Your task to perform on an android device: toggle show notifications on the lock screen Image 0: 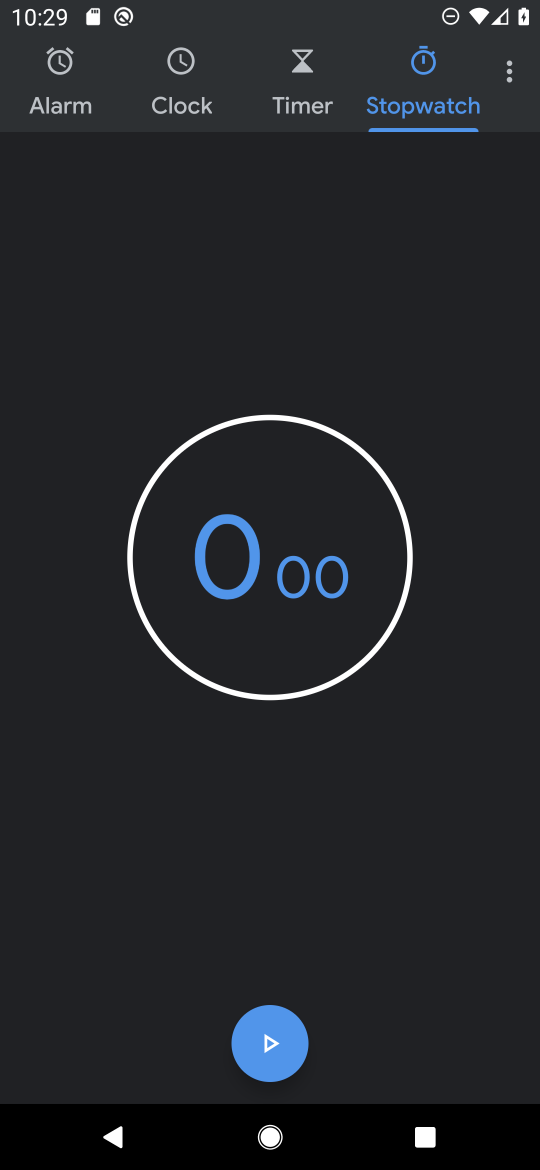
Step 0: press home button
Your task to perform on an android device: toggle show notifications on the lock screen Image 1: 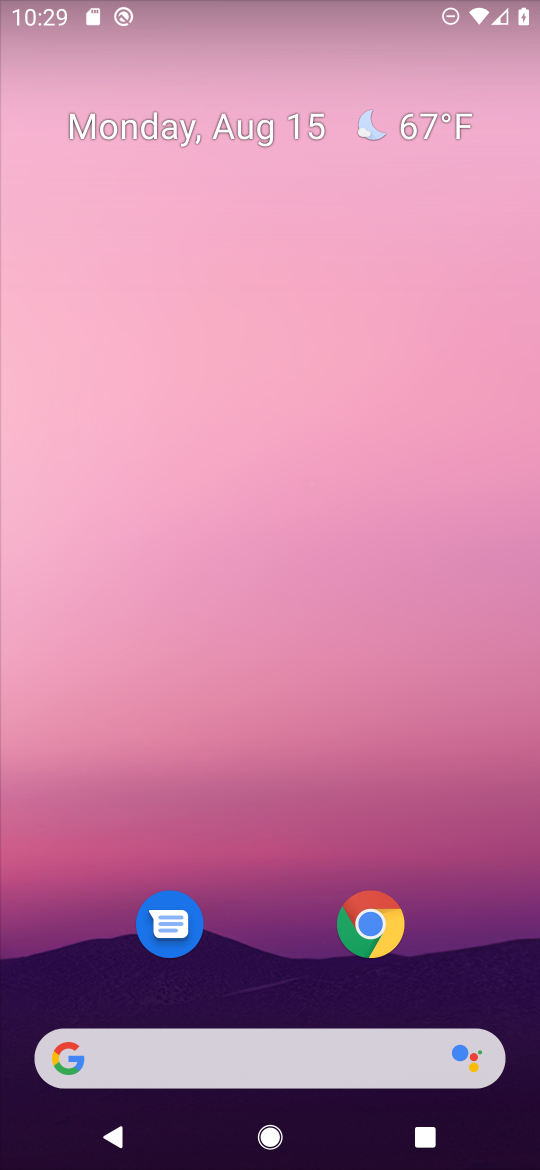
Step 1: drag from (508, 1012) to (480, 136)
Your task to perform on an android device: toggle show notifications on the lock screen Image 2: 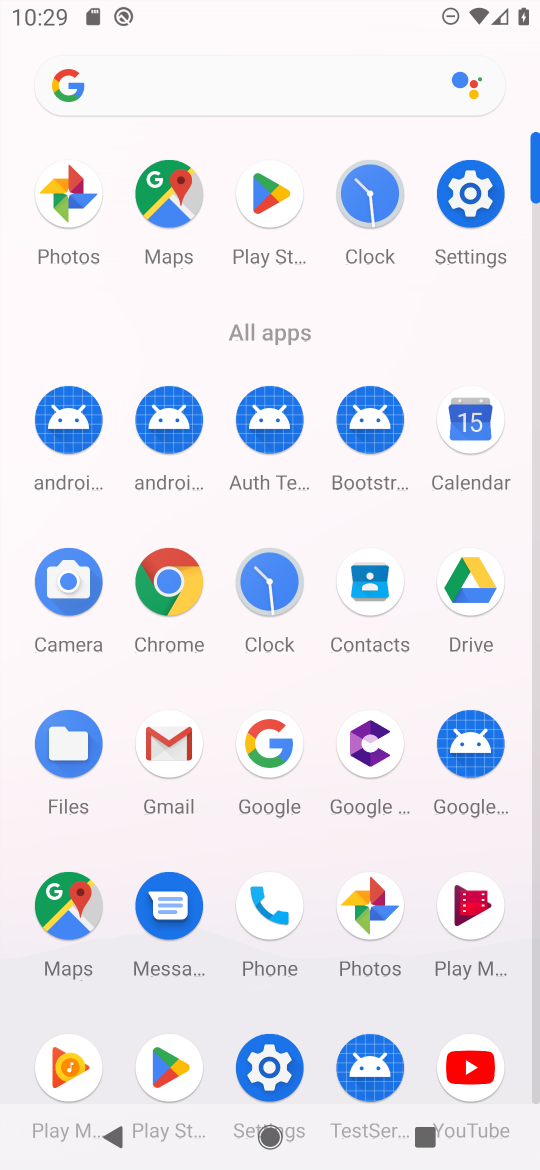
Step 2: click (268, 1067)
Your task to perform on an android device: toggle show notifications on the lock screen Image 3: 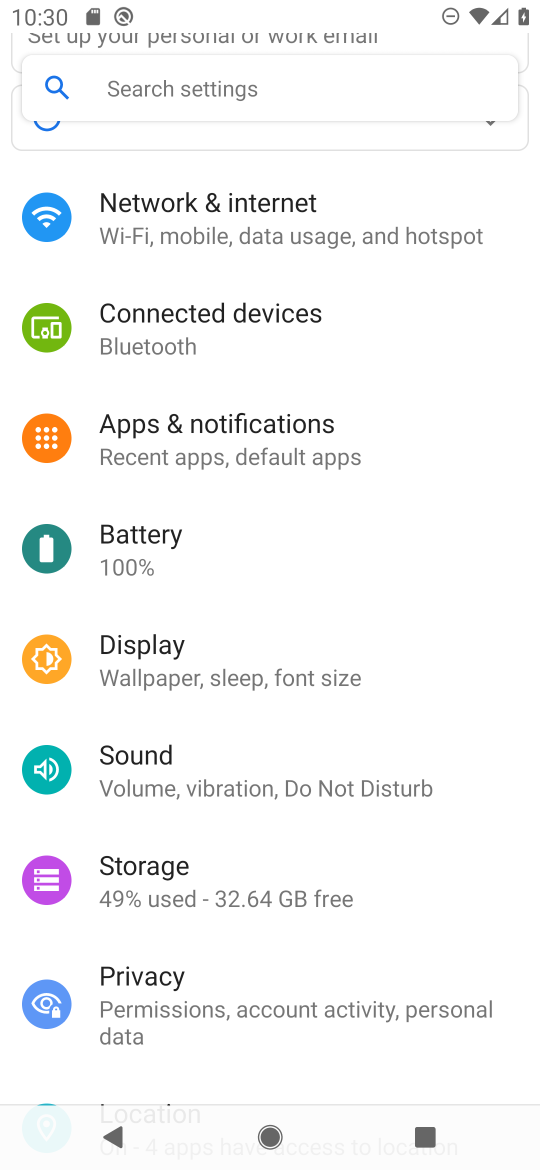
Step 3: click (187, 427)
Your task to perform on an android device: toggle show notifications on the lock screen Image 4: 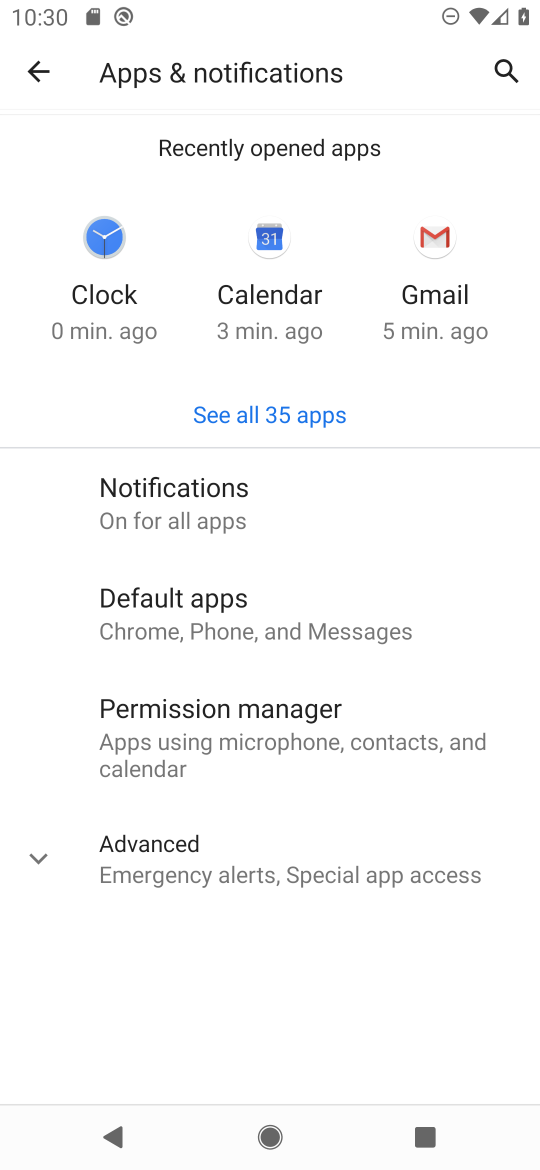
Step 4: click (182, 497)
Your task to perform on an android device: toggle show notifications on the lock screen Image 5: 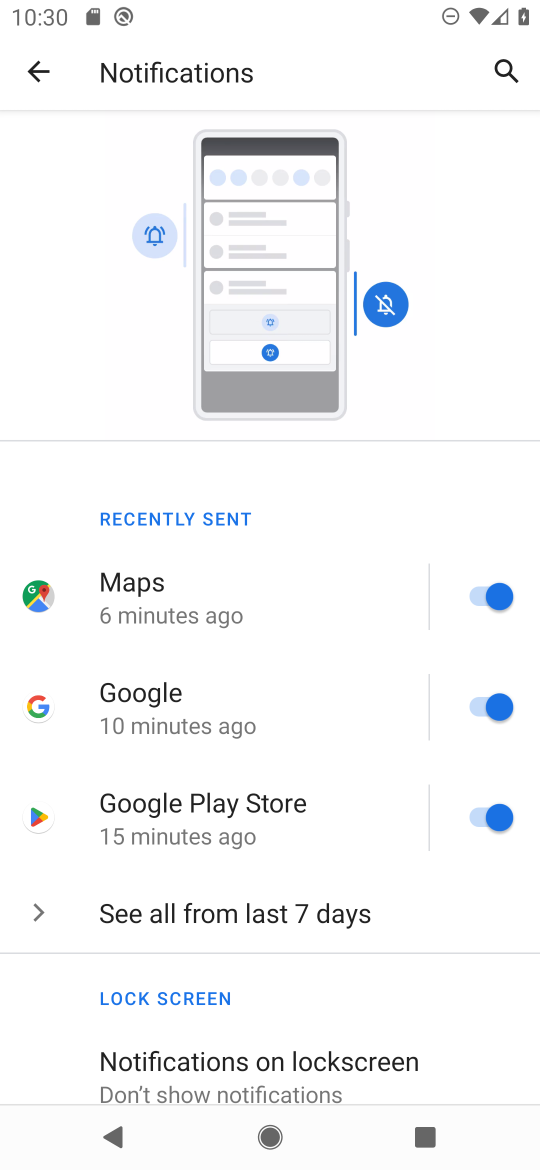
Step 5: drag from (386, 1010) to (423, 448)
Your task to perform on an android device: toggle show notifications on the lock screen Image 6: 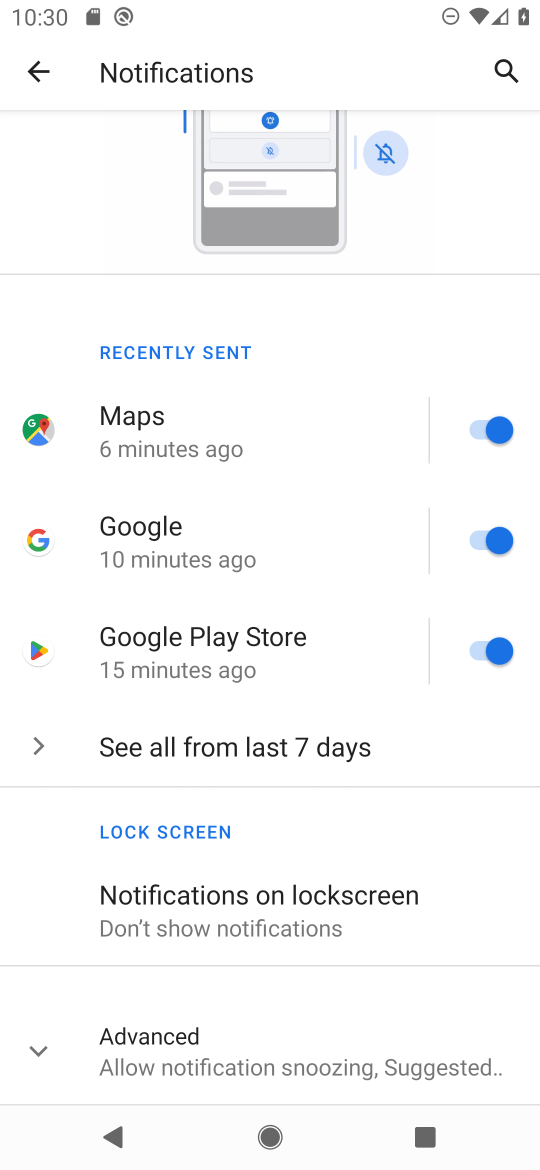
Step 6: click (246, 920)
Your task to perform on an android device: toggle show notifications on the lock screen Image 7: 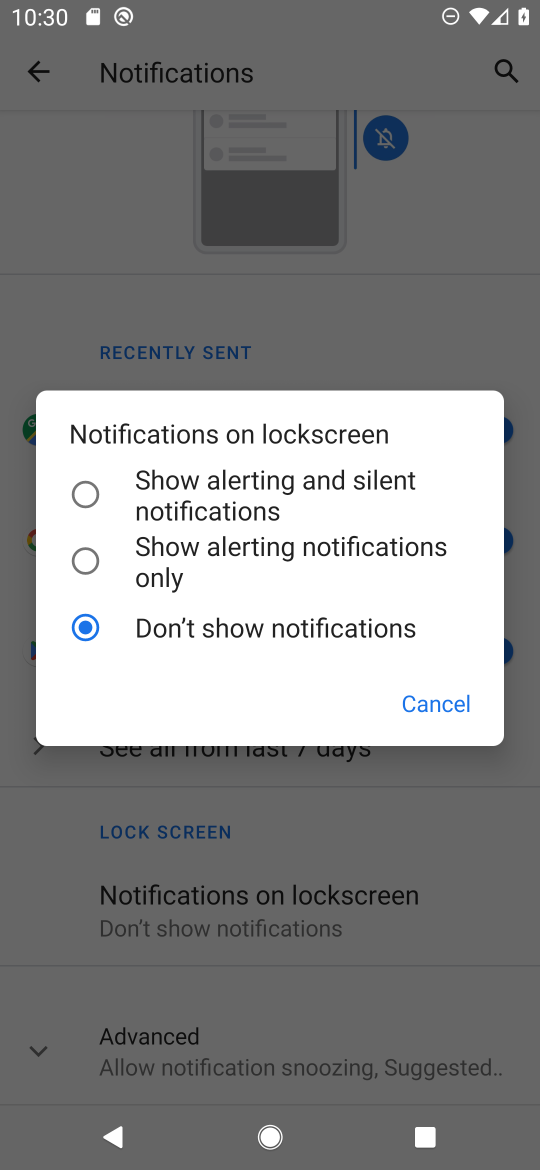
Step 7: click (89, 495)
Your task to perform on an android device: toggle show notifications on the lock screen Image 8: 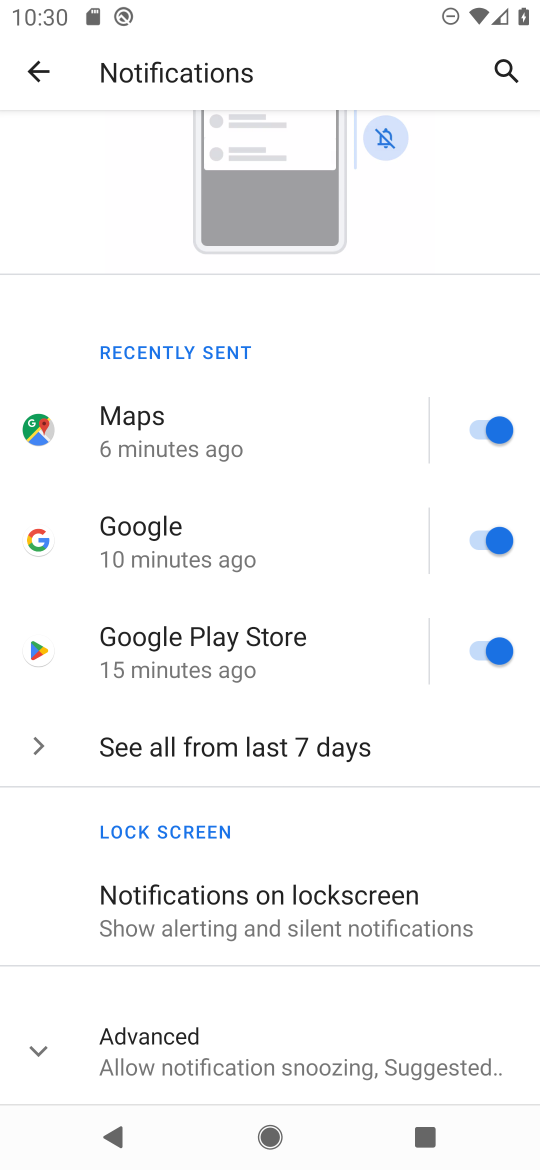
Step 8: task complete